Your task to perform on an android device: change alarm snooze length Image 0: 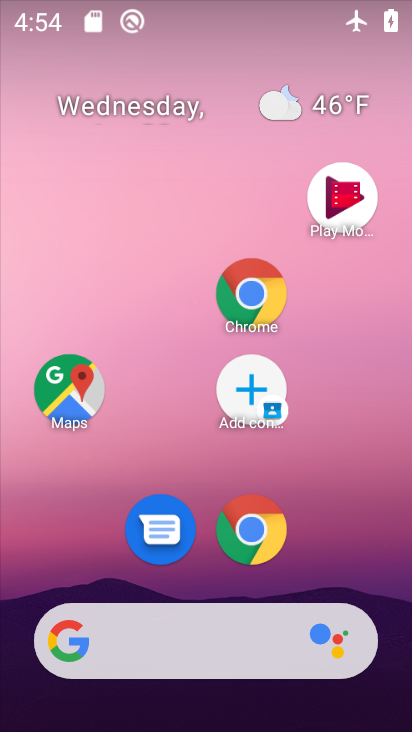
Step 0: drag from (353, 543) to (359, 101)
Your task to perform on an android device: change alarm snooze length Image 1: 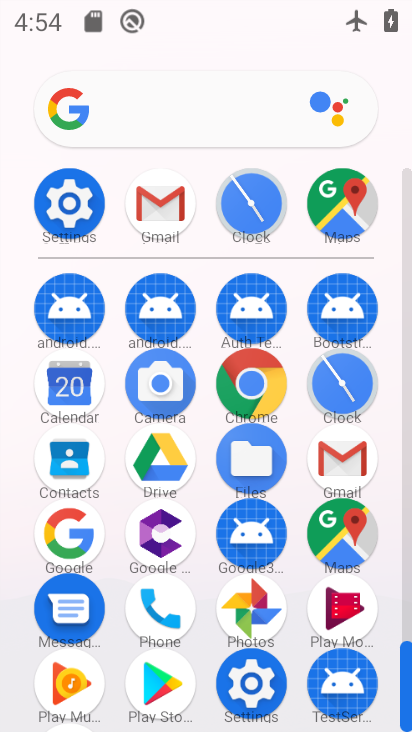
Step 1: click (353, 395)
Your task to perform on an android device: change alarm snooze length Image 2: 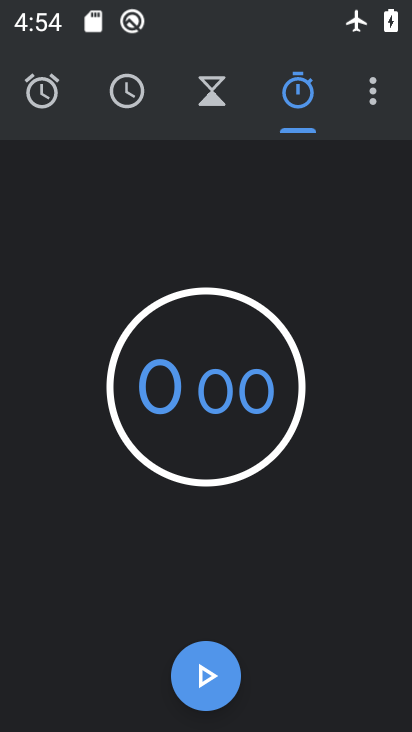
Step 2: click (381, 103)
Your task to perform on an android device: change alarm snooze length Image 3: 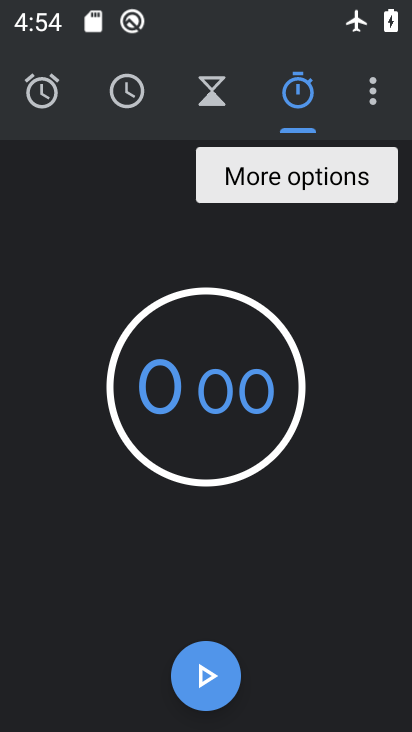
Step 3: click (370, 114)
Your task to perform on an android device: change alarm snooze length Image 4: 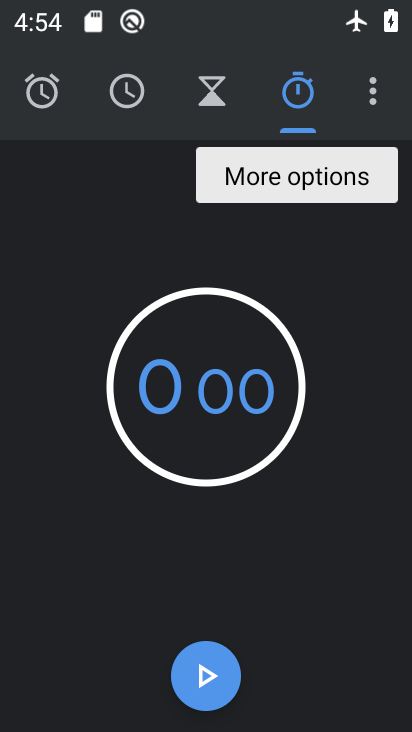
Step 4: click (376, 94)
Your task to perform on an android device: change alarm snooze length Image 5: 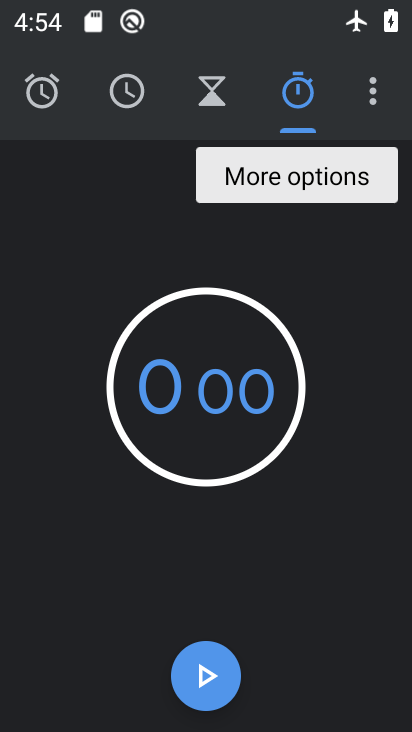
Step 5: click (377, 94)
Your task to perform on an android device: change alarm snooze length Image 6: 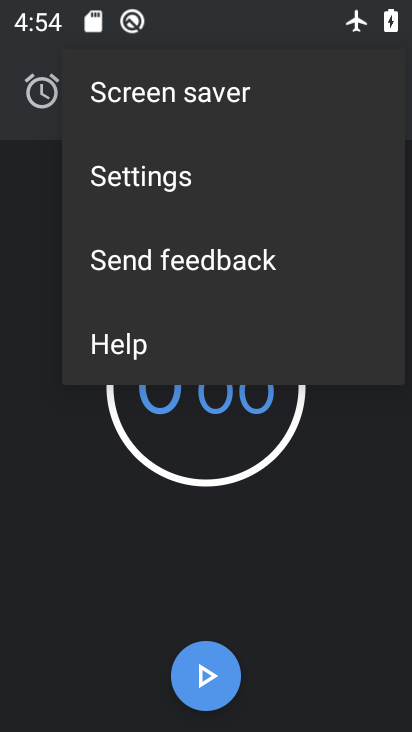
Step 6: click (163, 186)
Your task to perform on an android device: change alarm snooze length Image 7: 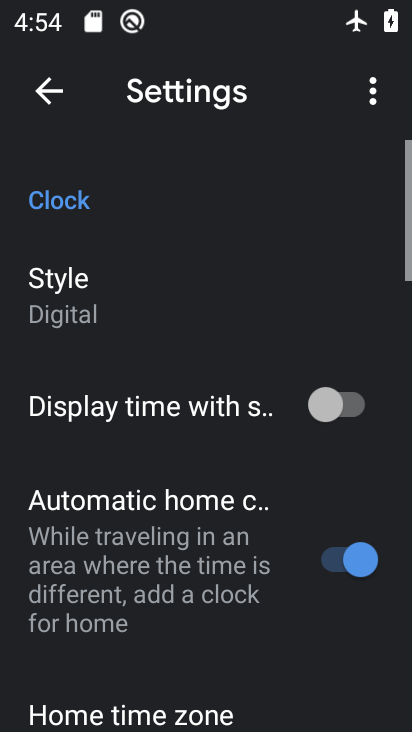
Step 7: drag from (187, 616) to (274, 210)
Your task to perform on an android device: change alarm snooze length Image 8: 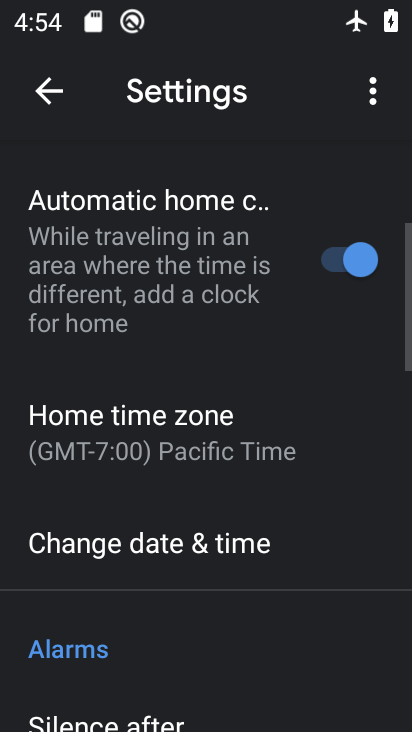
Step 8: drag from (154, 606) to (192, 361)
Your task to perform on an android device: change alarm snooze length Image 9: 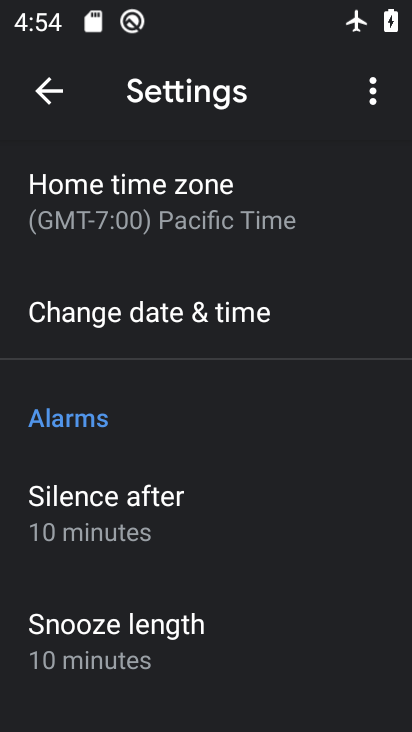
Step 9: click (109, 656)
Your task to perform on an android device: change alarm snooze length Image 10: 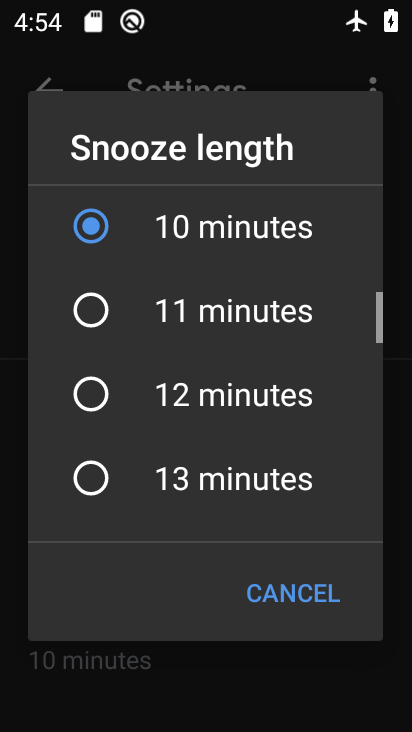
Step 10: click (85, 313)
Your task to perform on an android device: change alarm snooze length Image 11: 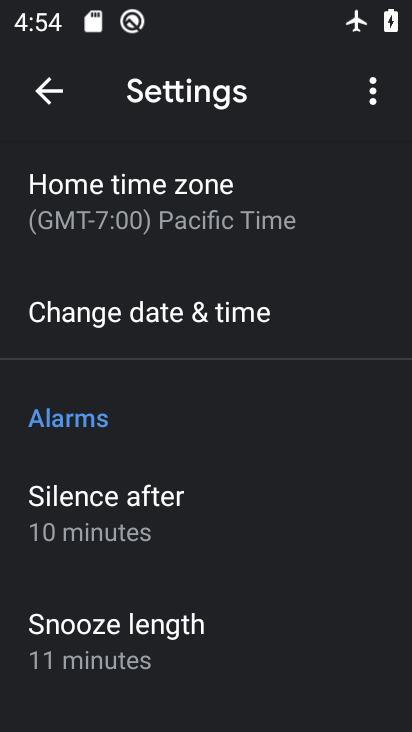
Step 11: task complete